Your task to perform on an android device: Turn on the flashlight Image 0: 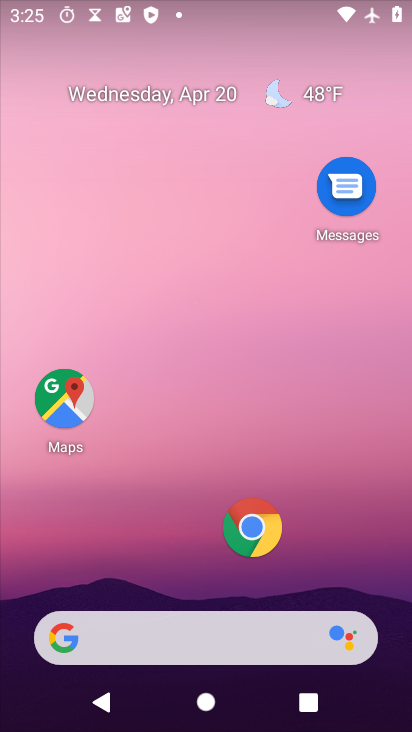
Step 0: drag from (227, 39) to (202, 369)
Your task to perform on an android device: Turn on the flashlight Image 1: 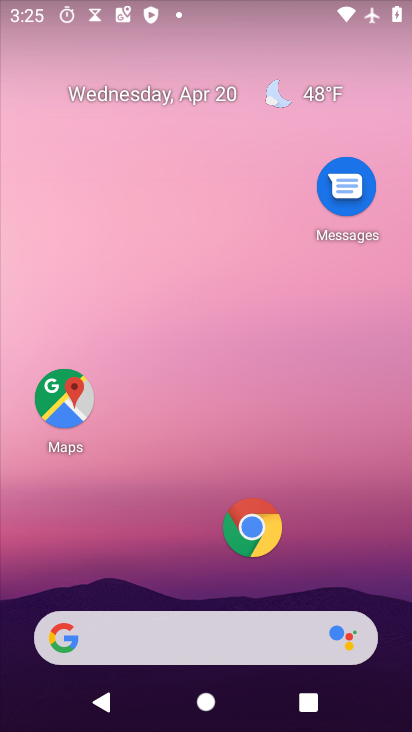
Step 1: task complete